Your task to perform on an android device: open app "Walmart Shopping & Grocery" (install if not already installed) Image 0: 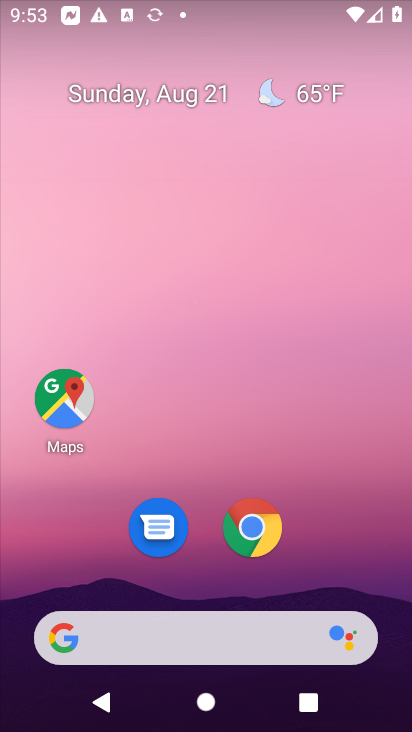
Step 0: drag from (183, 579) to (196, 249)
Your task to perform on an android device: open app "Walmart Shopping & Grocery" (install if not already installed) Image 1: 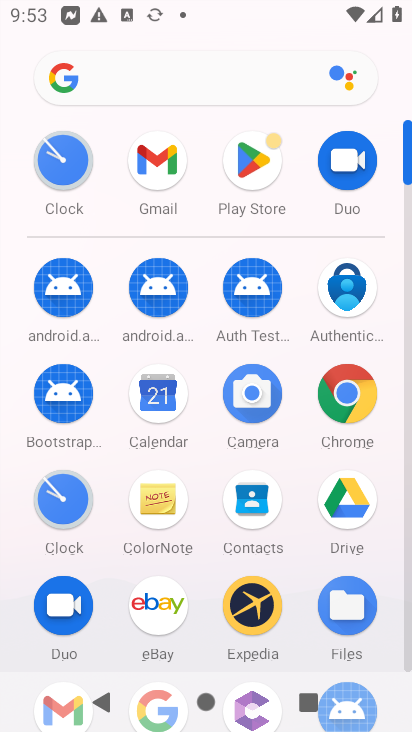
Step 1: click (255, 164)
Your task to perform on an android device: open app "Walmart Shopping & Grocery" (install if not already installed) Image 2: 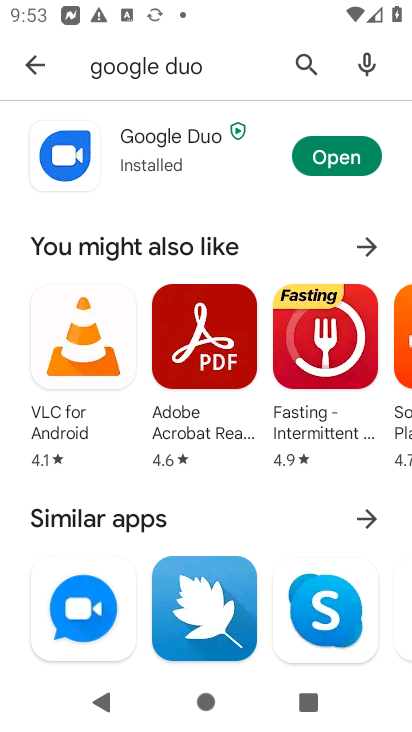
Step 2: click (203, 82)
Your task to perform on an android device: open app "Walmart Shopping & Grocery" (install if not already installed) Image 3: 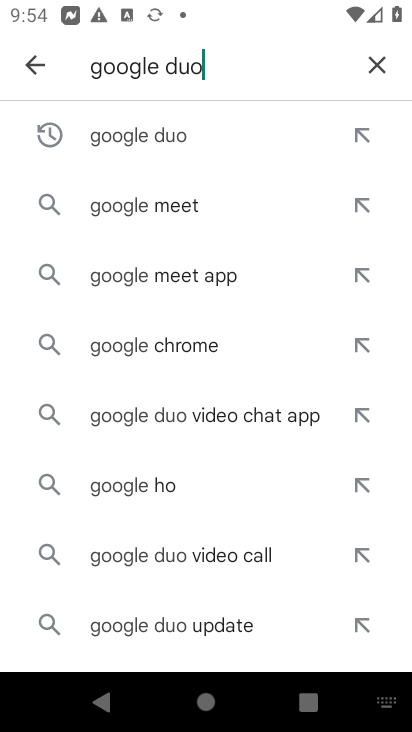
Step 3: click (371, 61)
Your task to perform on an android device: open app "Walmart Shopping & Grocery" (install if not already installed) Image 4: 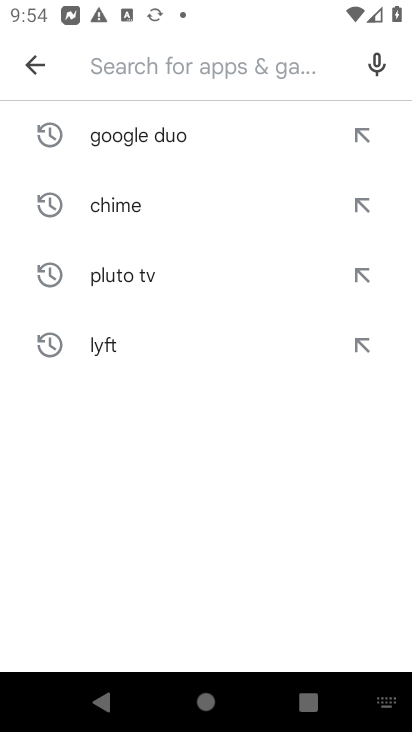
Step 4: type "walmart"
Your task to perform on an android device: open app "Walmart Shopping & Grocery" (install if not already installed) Image 5: 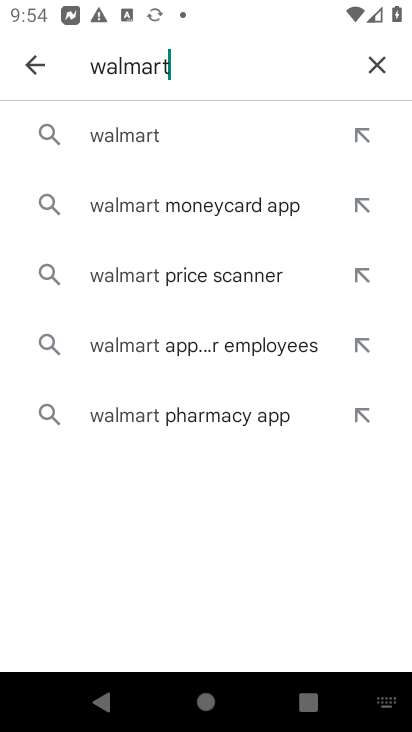
Step 5: click (181, 148)
Your task to perform on an android device: open app "Walmart Shopping & Grocery" (install if not already installed) Image 6: 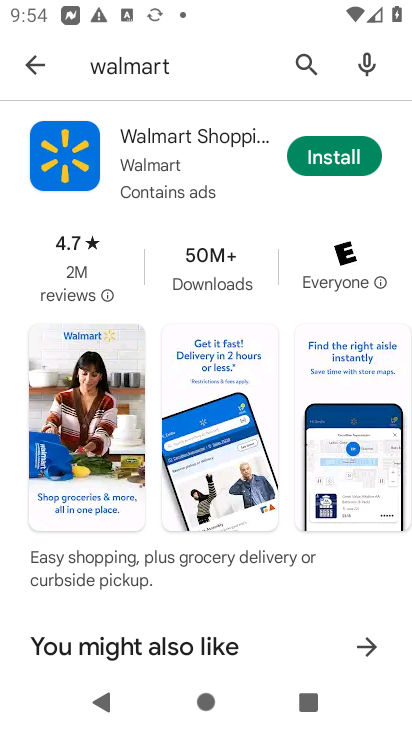
Step 6: click (343, 148)
Your task to perform on an android device: open app "Walmart Shopping & Grocery" (install if not already installed) Image 7: 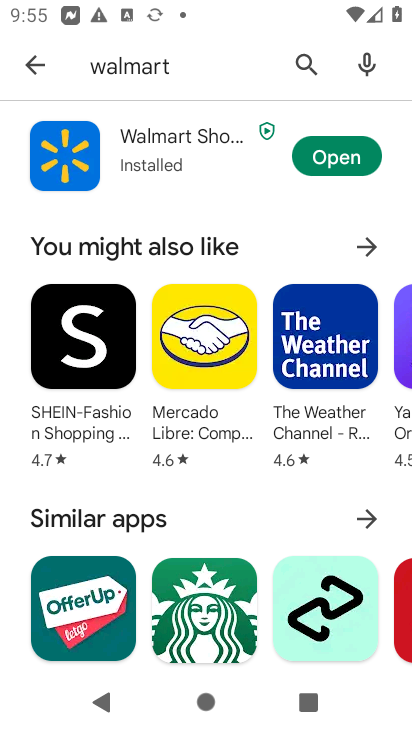
Step 7: click (348, 134)
Your task to perform on an android device: open app "Walmart Shopping & Grocery" (install if not already installed) Image 8: 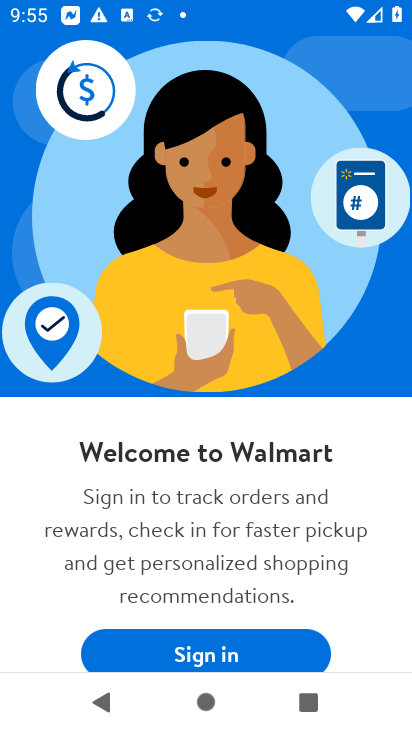
Step 8: click (255, 649)
Your task to perform on an android device: open app "Walmart Shopping & Grocery" (install if not already installed) Image 9: 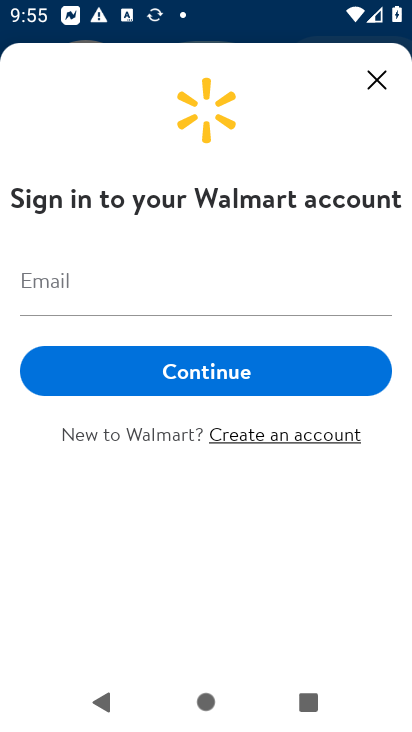
Step 9: task complete